Your task to perform on an android device: empty trash in the gmail app Image 0: 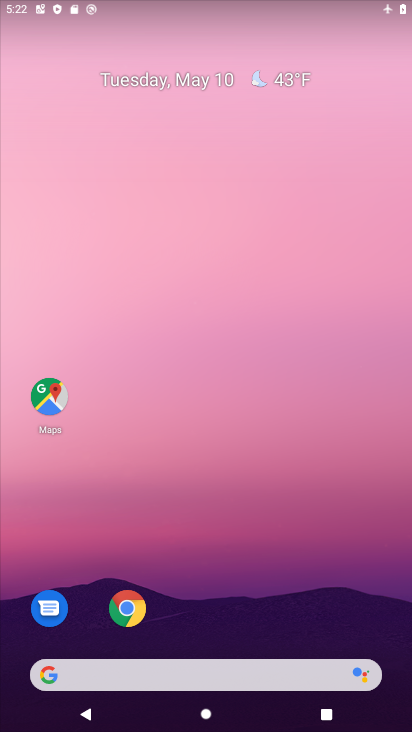
Step 0: drag from (249, 547) to (292, 3)
Your task to perform on an android device: empty trash in the gmail app Image 1: 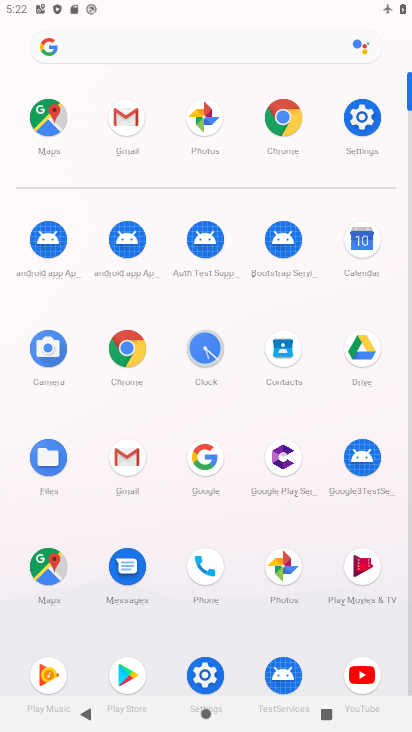
Step 1: click (138, 461)
Your task to perform on an android device: empty trash in the gmail app Image 2: 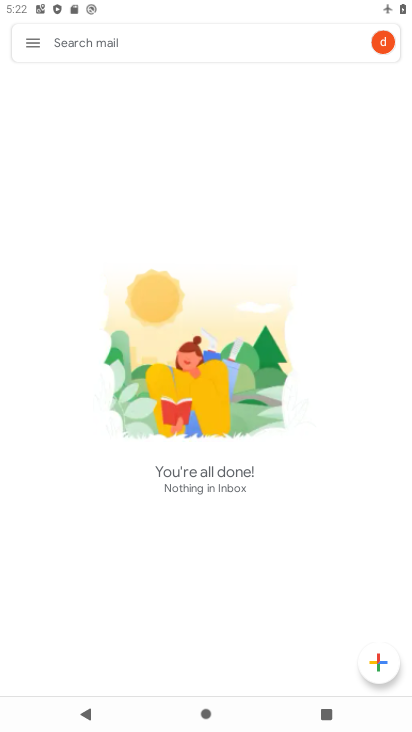
Step 2: click (24, 38)
Your task to perform on an android device: empty trash in the gmail app Image 3: 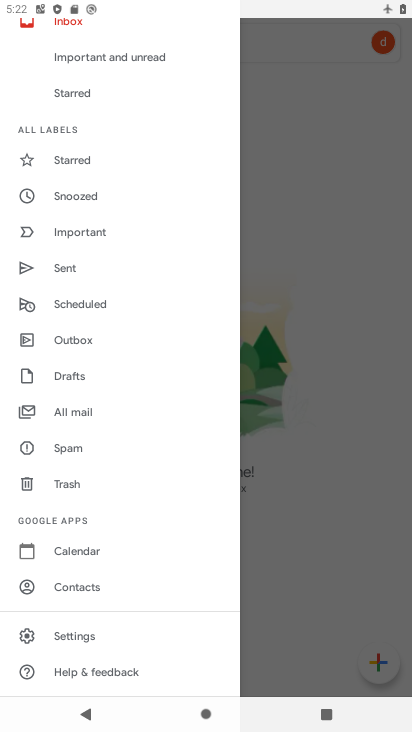
Step 3: click (63, 484)
Your task to perform on an android device: empty trash in the gmail app Image 4: 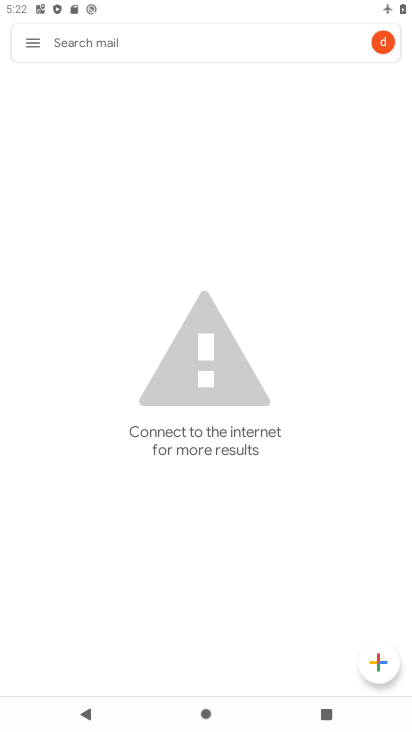
Step 4: click (35, 40)
Your task to perform on an android device: empty trash in the gmail app Image 5: 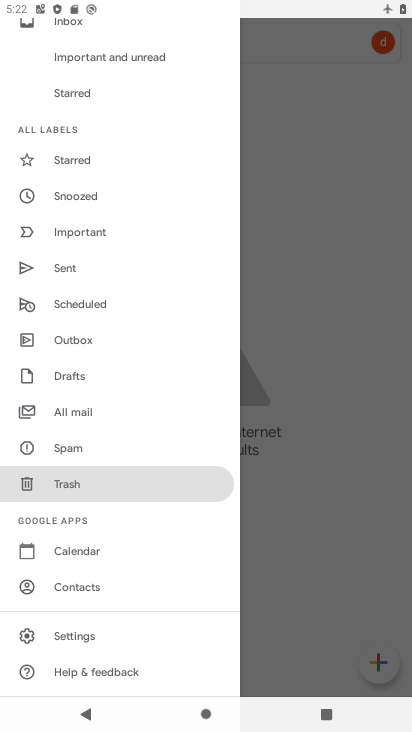
Step 5: click (86, 485)
Your task to perform on an android device: empty trash in the gmail app Image 6: 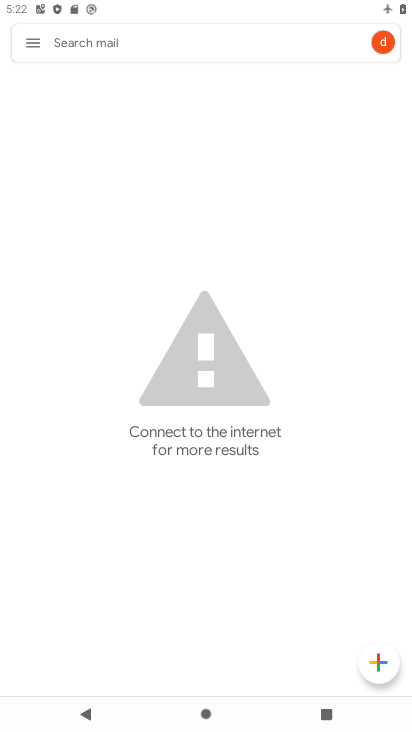
Step 6: task complete